Your task to perform on an android device: make emails show in primary in the gmail app Image 0: 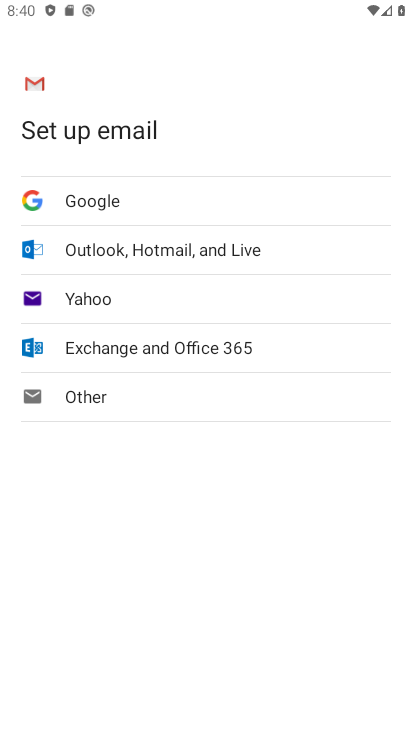
Step 0: drag from (259, 692) to (236, 653)
Your task to perform on an android device: make emails show in primary in the gmail app Image 1: 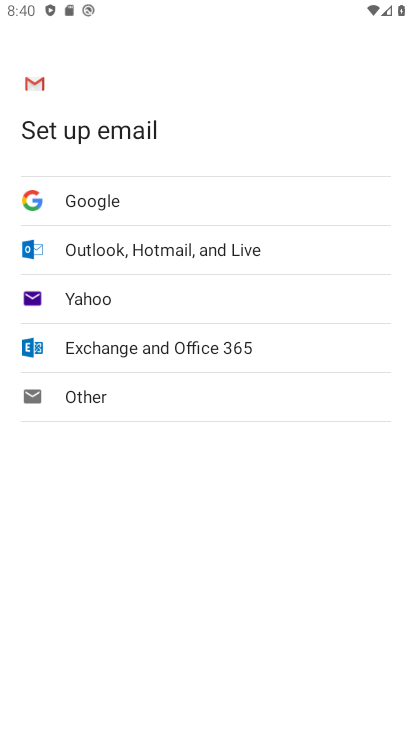
Step 1: press back button
Your task to perform on an android device: make emails show in primary in the gmail app Image 2: 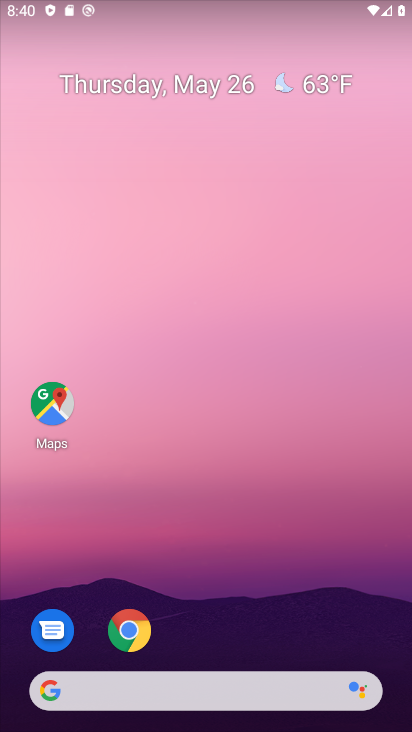
Step 2: drag from (299, 713) to (138, 118)
Your task to perform on an android device: make emails show in primary in the gmail app Image 3: 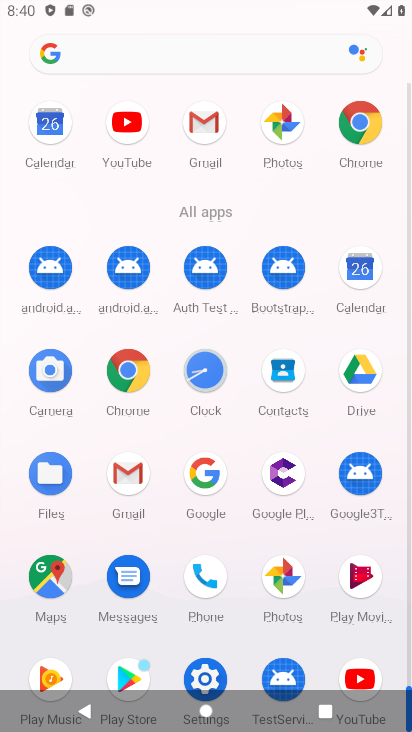
Step 3: click (121, 473)
Your task to perform on an android device: make emails show in primary in the gmail app Image 4: 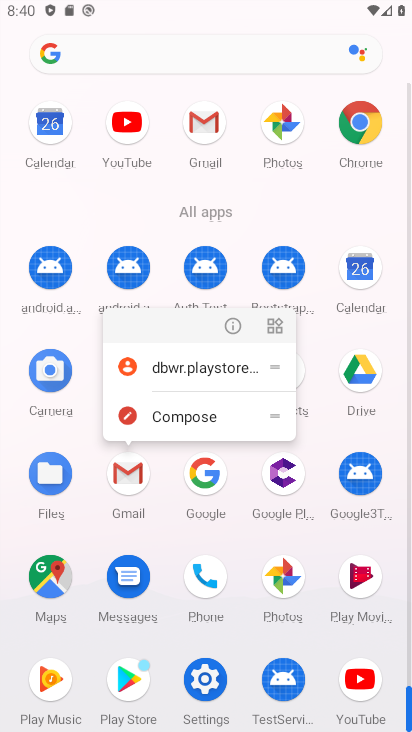
Step 4: click (129, 466)
Your task to perform on an android device: make emails show in primary in the gmail app Image 5: 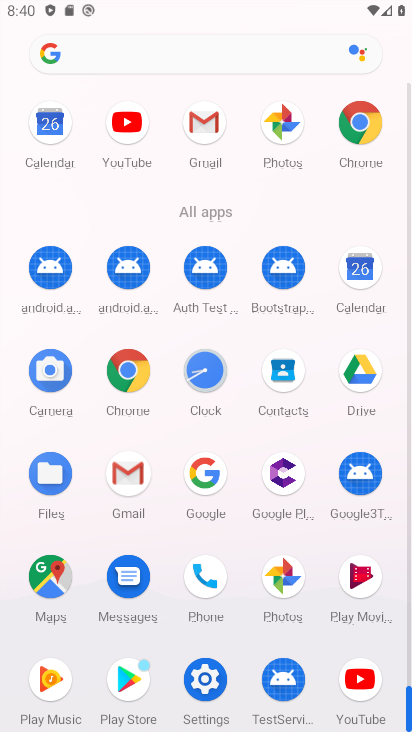
Step 5: click (130, 465)
Your task to perform on an android device: make emails show in primary in the gmail app Image 6: 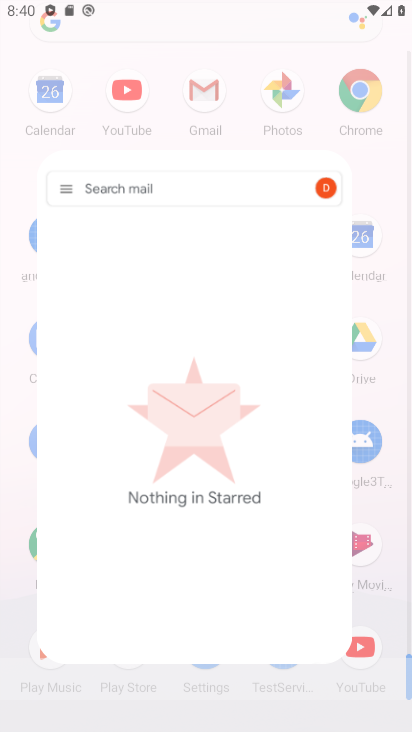
Step 6: click (131, 465)
Your task to perform on an android device: make emails show in primary in the gmail app Image 7: 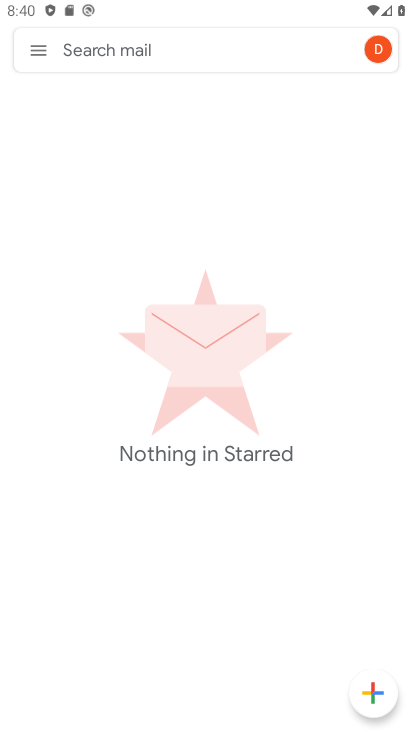
Step 7: click (134, 460)
Your task to perform on an android device: make emails show in primary in the gmail app Image 8: 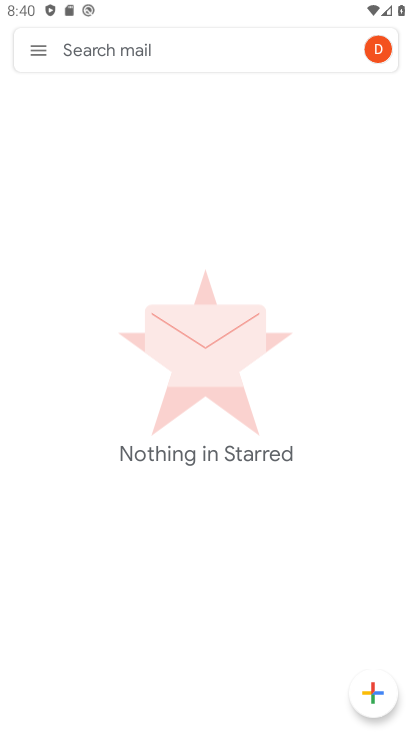
Step 8: click (37, 43)
Your task to perform on an android device: make emails show in primary in the gmail app Image 9: 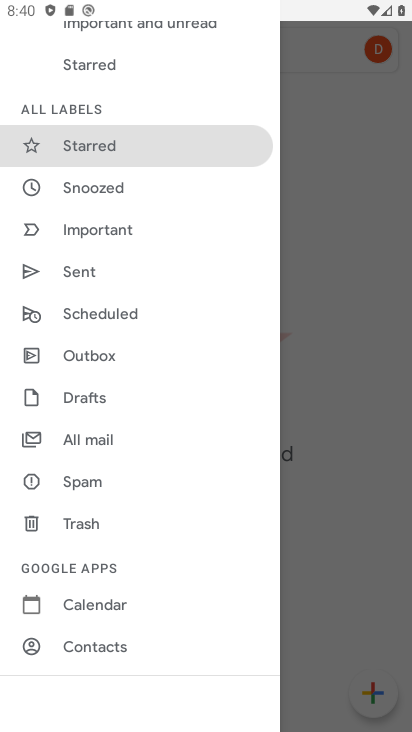
Step 9: click (85, 603)
Your task to perform on an android device: make emails show in primary in the gmail app Image 10: 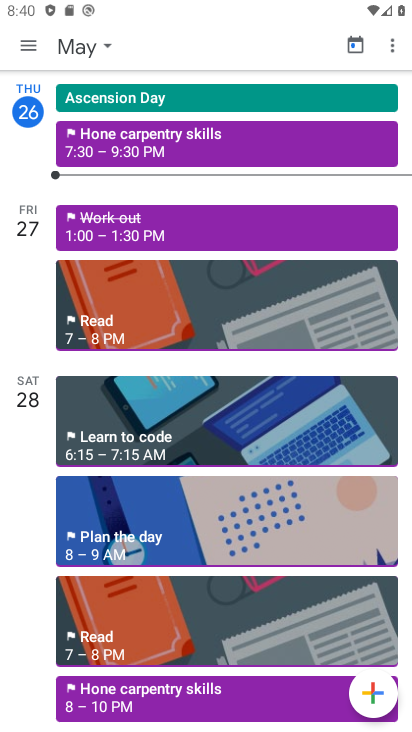
Step 10: press back button
Your task to perform on an android device: make emails show in primary in the gmail app Image 11: 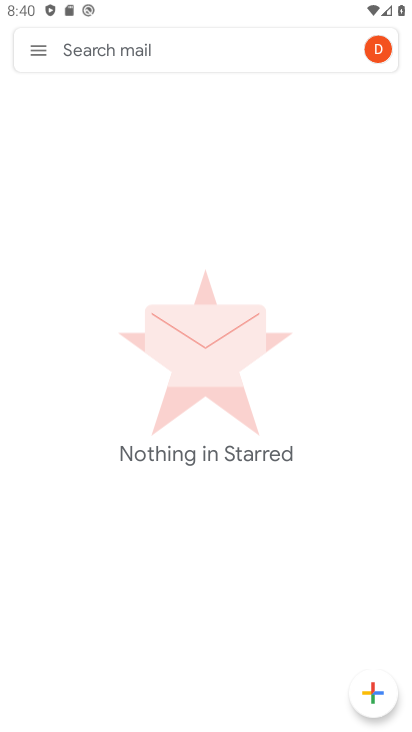
Step 11: click (33, 56)
Your task to perform on an android device: make emails show in primary in the gmail app Image 12: 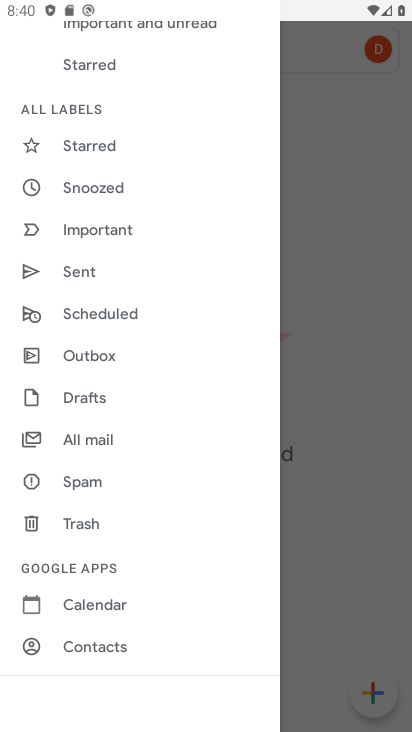
Step 12: drag from (106, 571) to (82, 151)
Your task to perform on an android device: make emails show in primary in the gmail app Image 13: 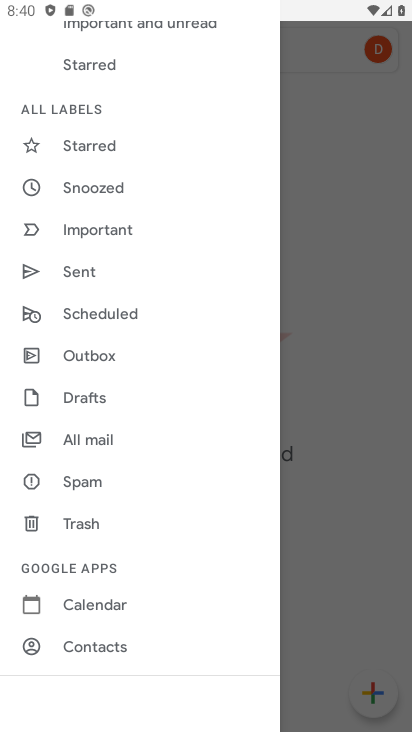
Step 13: drag from (67, 622) to (95, 193)
Your task to perform on an android device: make emails show in primary in the gmail app Image 14: 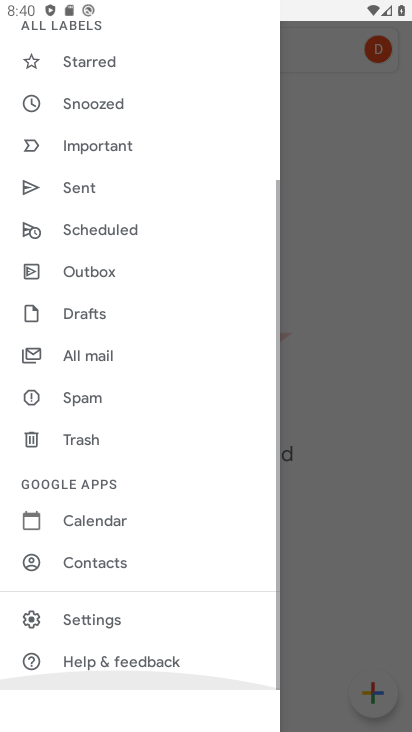
Step 14: drag from (87, 609) to (81, 266)
Your task to perform on an android device: make emails show in primary in the gmail app Image 15: 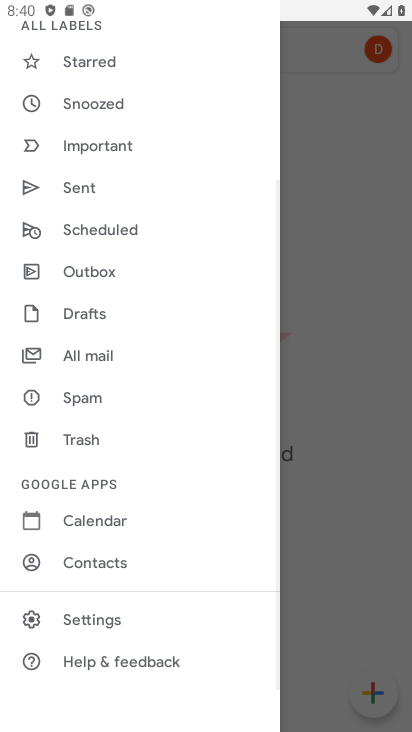
Step 15: click (89, 619)
Your task to perform on an android device: make emails show in primary in the gmail app Image 16: 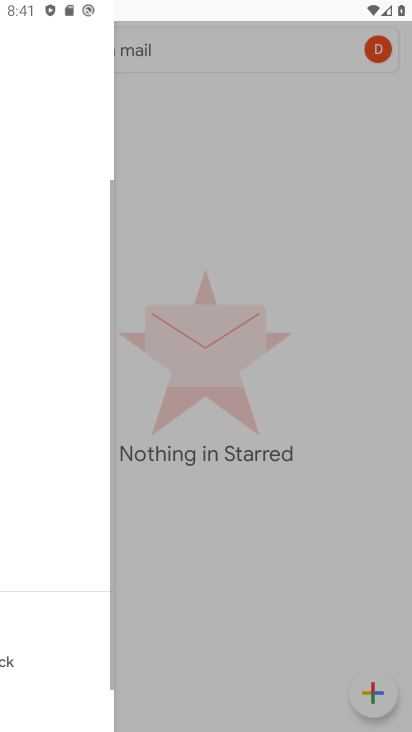
Step 16: click (92, 611)
Your task to perform on an android device: make emails show in primary in the gmail app Image 17: 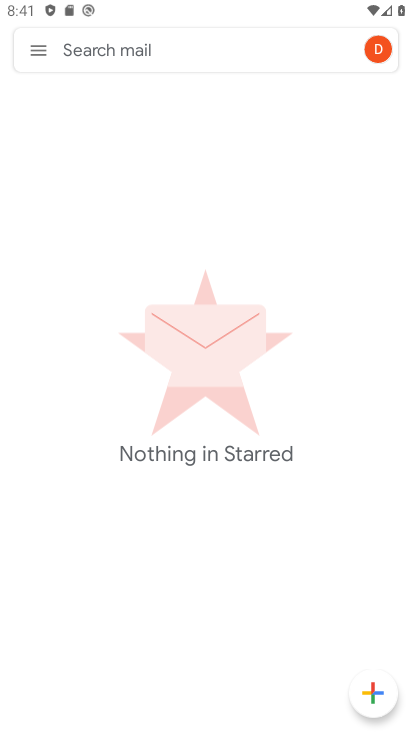
Step 17: click (93, 609)
Your task to perform on an android device: make emails show in primary in the gmail app Image 18: 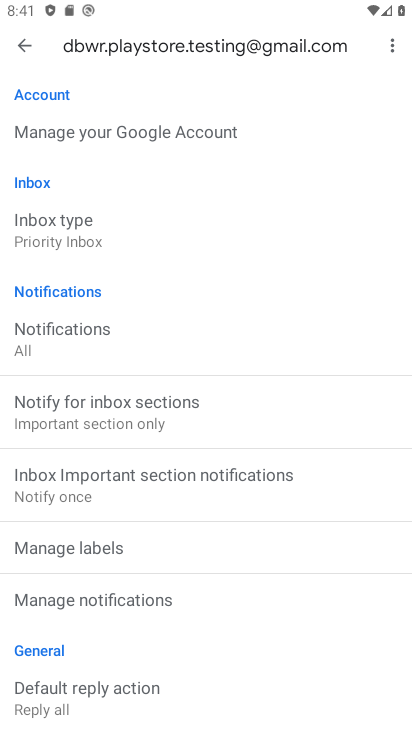
Step 18: click (42, 236)
Your task to perform on an android device: make emails show in primary in the gmail app Image 19: 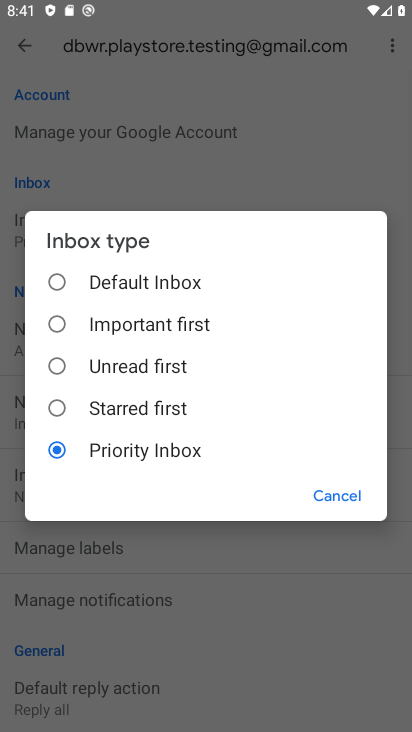
Step 19: click (52, 282)
Your task to perform on an android device: make emails show in primary in the gmail app Image 20: 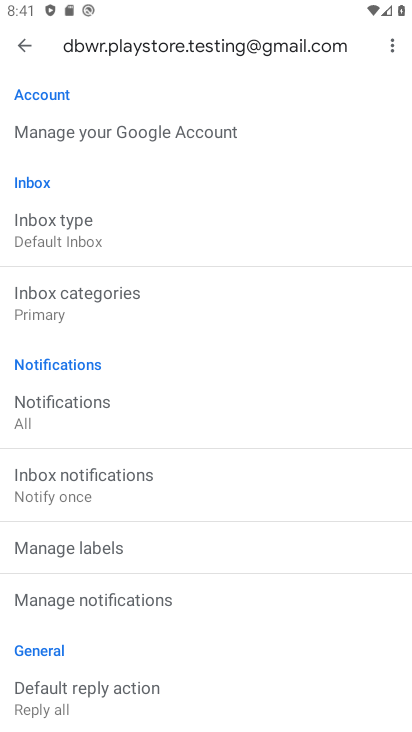
Step 20: task complete